Your task to perform on an android device: change keyboard looks Image 0: 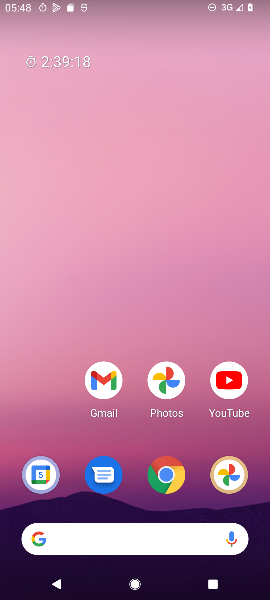
Step 0: press home button
Your task to perform on an android device: change keyboard looks Image 1: 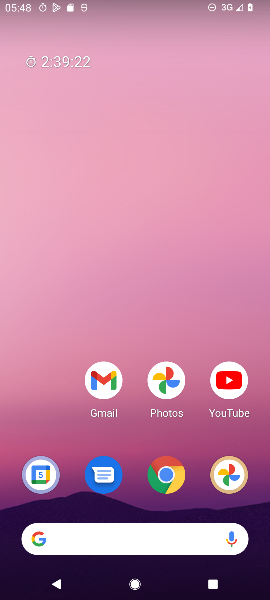
Step 1: drag from (60, 442) to (46, 140)
Your task to perform on an android device: change keyboard looks Image 2: 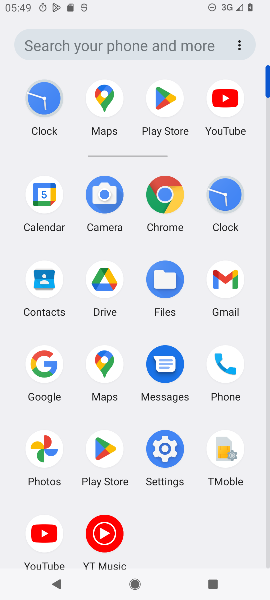
Step 2: click (163, 450)
Your task to perform on an android device: change keyboard looks Image 3: 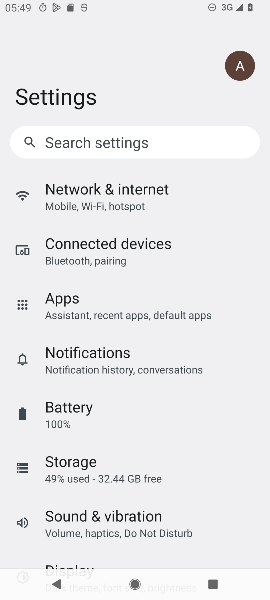
Step 3: drag from (238, 413) to (232, 322)
Your task to perform on an android device: change keyboard looks Image 4: 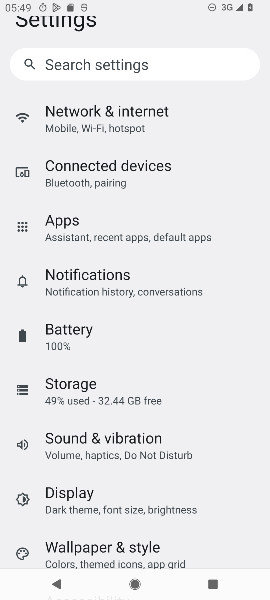
Step 4: drag from (233, 464) to (230, 377)
Your task to perform on an android device: change keyboard looks Image 5: 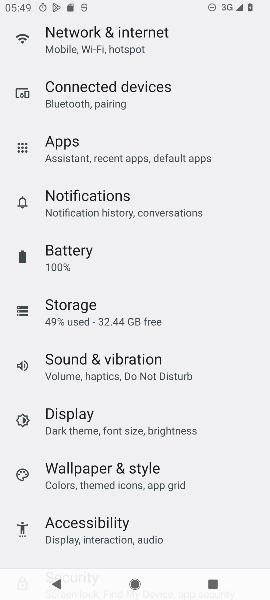
Step 5: drag from (231, 473) to (234, 388)
Your task to perform on an android device: change keyboard looks Image 6: 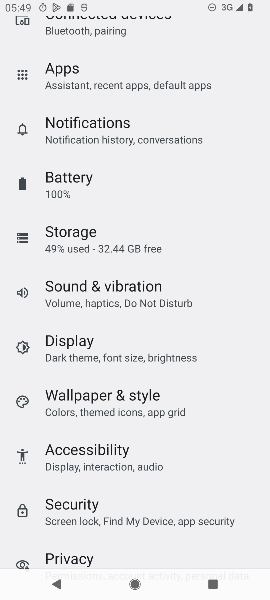
Step 6: drag from (229, 472) to (236, 389)
Your task to perform on an android device: change keyboard looks Image 7: 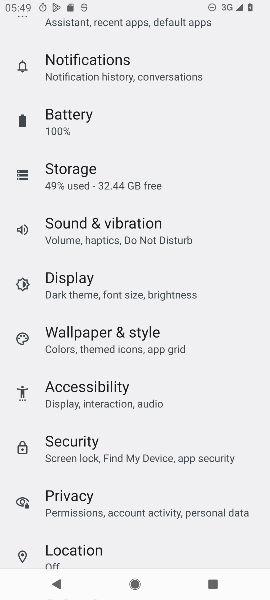
Step 7: drag from (222, 400) to (220, 348)
Your task to perform on an android device: change keyboard looks Image 8: 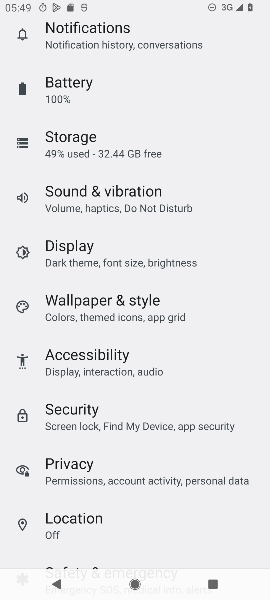
Step 8: drag from (226, 453) to (226, 383)
Your task to perform on an android device: change keyboard looks Image 9: 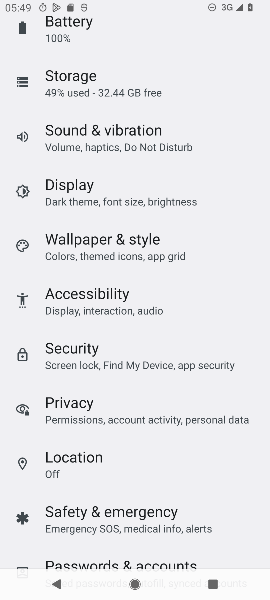
Step 9: drag from (230, 468) to (234, 377)
Your task to perform on an android device: change keyboard looks Image 10: 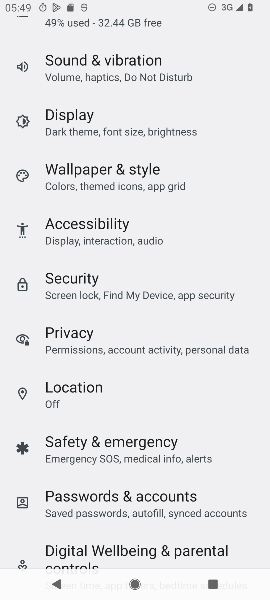
Step 10: drag from (233, 450) to (232, 391)
Your task to perform on an android device: change keyboard looks Image 11: 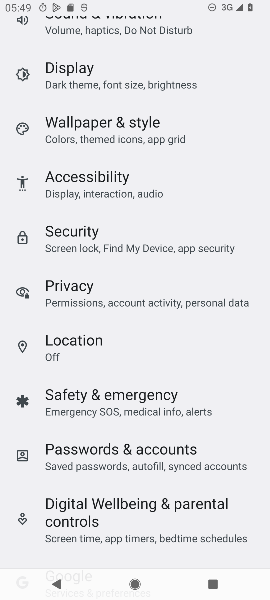
Step 11: drag from (228, 459) to (229, 349)
Your task to perform on an android device: change keyboard looks Image 12: 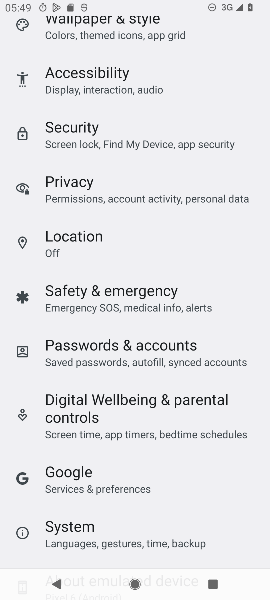
Step 12: drag from (220, 426) to (220, 338)
Your task to perform on an android device: change keyboard looks Image 13: 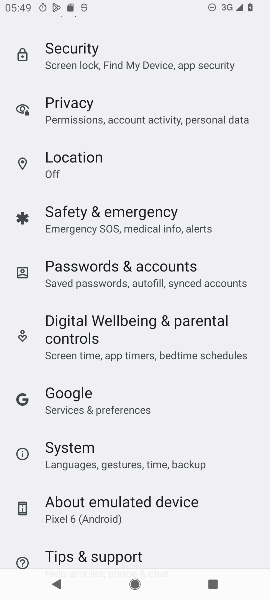
Step 13: drag from (218, 454) to (222, 364)
Your task to perform on an android device: change keyboard looks Image 14: 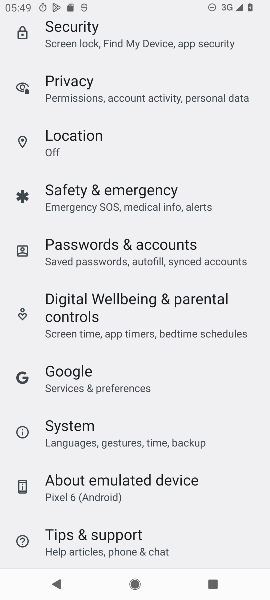
Step 14: drag from (210, 512) to (214, 379)
Your task to perform on an android device: change keyboard looks Image 15: 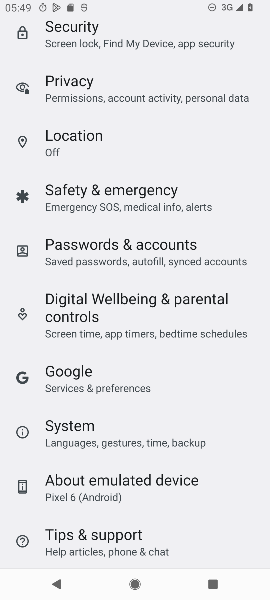
Step 15: click (146, 424)
Your task to perform on an android device: change keyboard looks Image 16: 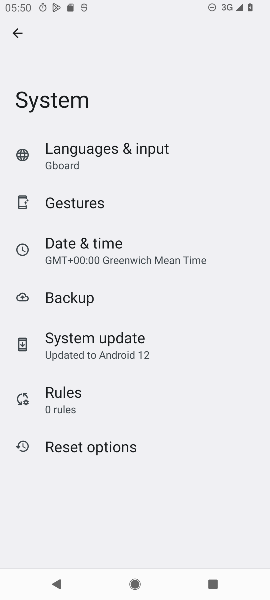
Step 16: click (139, 166)
Your task to perform on an android device: change keyboard looks Image 17: 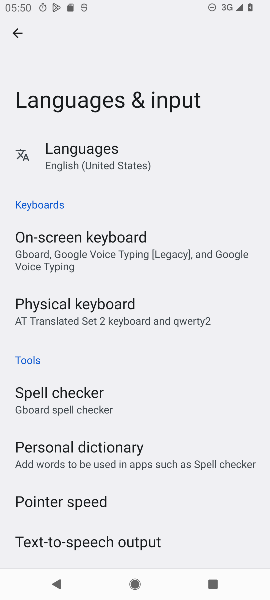
Step 17: click (139, 245)
Your task to perform on an android device: change keyboard looks Image 18: 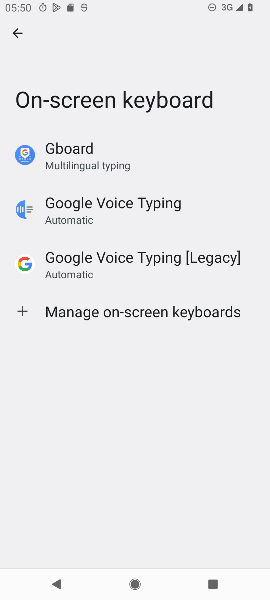
Step 18: click (120, 155)
Your task to perform on an android device: change keyboard looks Image 19: 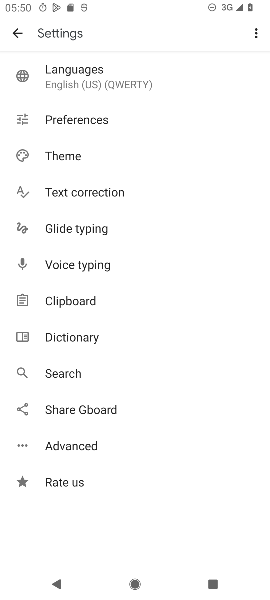
Step 19: click (77, 157)
Your task to perform on an android device: change keyboard looks Image 20: 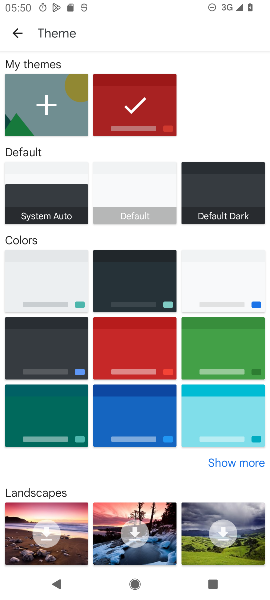
Step 20: click (231, 357)
Your task to perform on an android device: change keyboard looks Image 21: 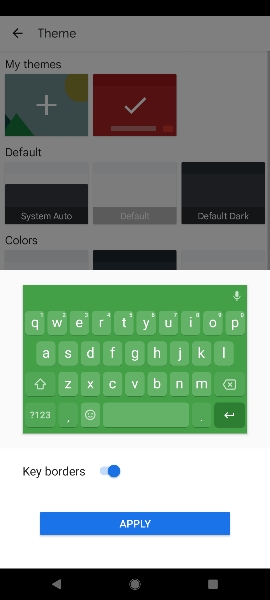
Step 21: click (184, 521)
Your task to perform on an android device: change keyboard looks Image 22: 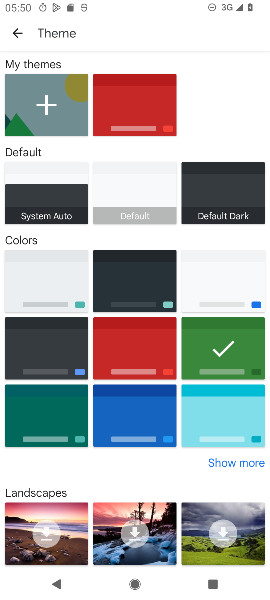
Step 22: task complete